Your task to perform on an android device: uninstall "Reddit" Image 0: 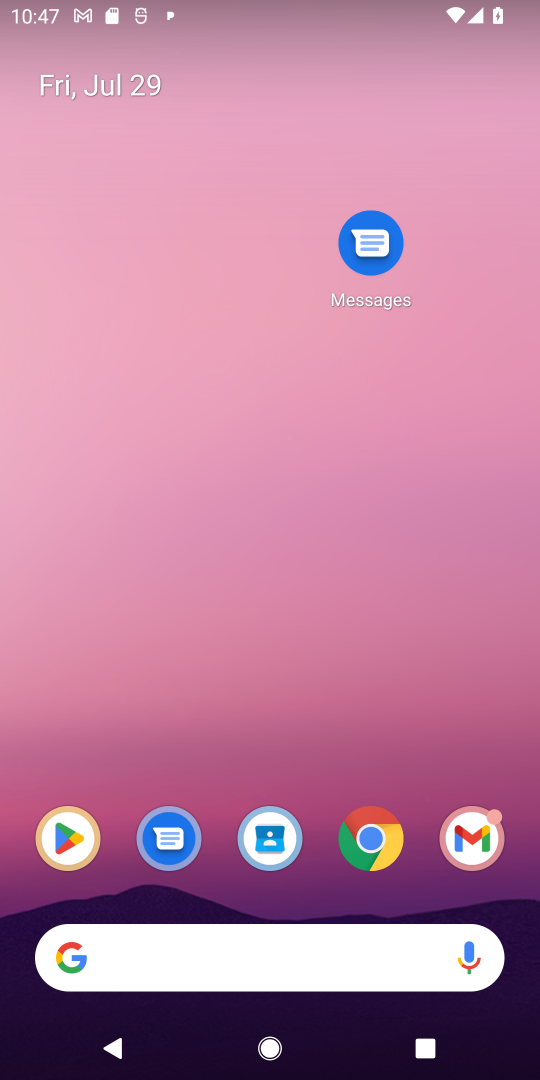
Step 0: click (84, 843)
Your task to perform on an android device: uninstall "Reddit" Image 1: 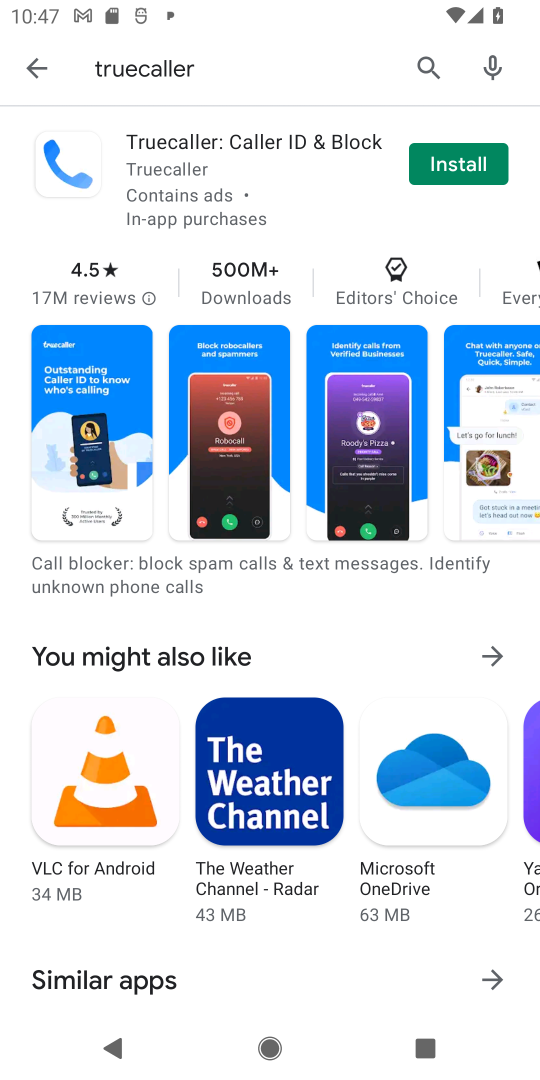
Step 1: click (222, 82)
Your task to perform on an android device: uninstall "Reddit" Image 2: 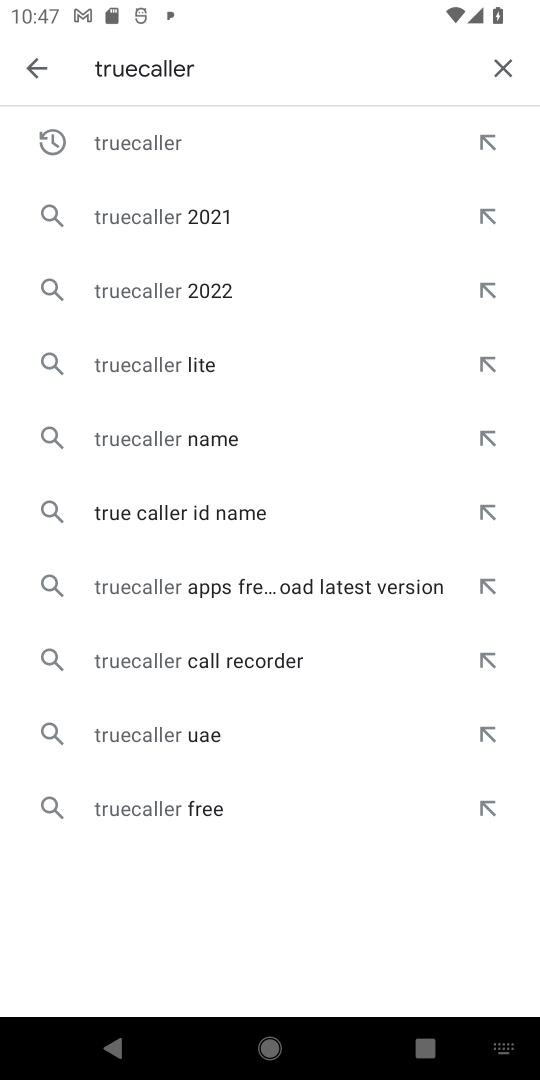
Step 2: click (497, 64)
Your task to perform on an android device: uninstall "Reddit" Image 3: 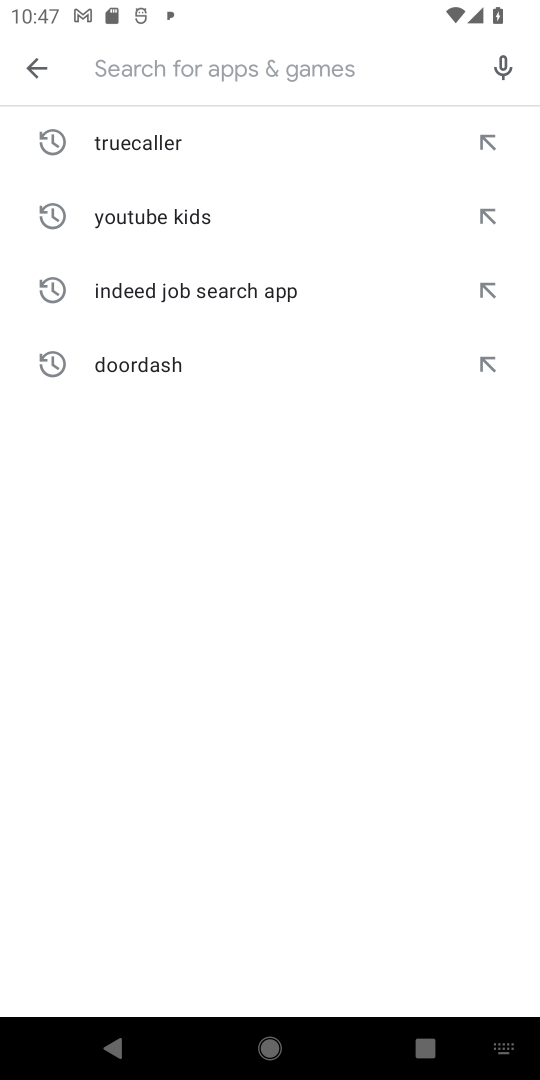
Step 3: type "Reddit"
Your task to perform on an android device: uninstall "Reddit" Image 4: 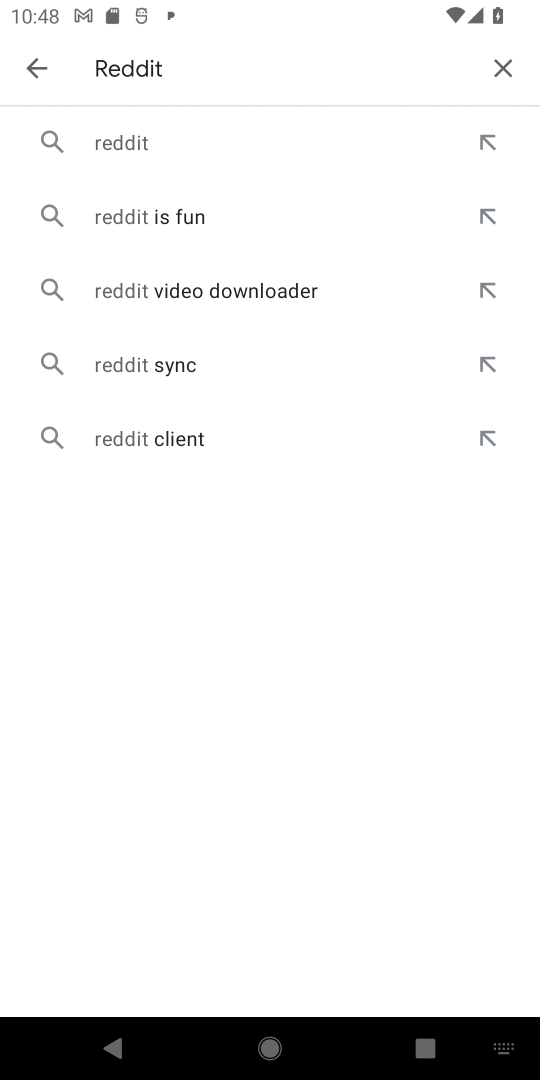
Step 4: click (152, 134)
Your task to perform on an android device: uninstall "Reddit" Image 5: 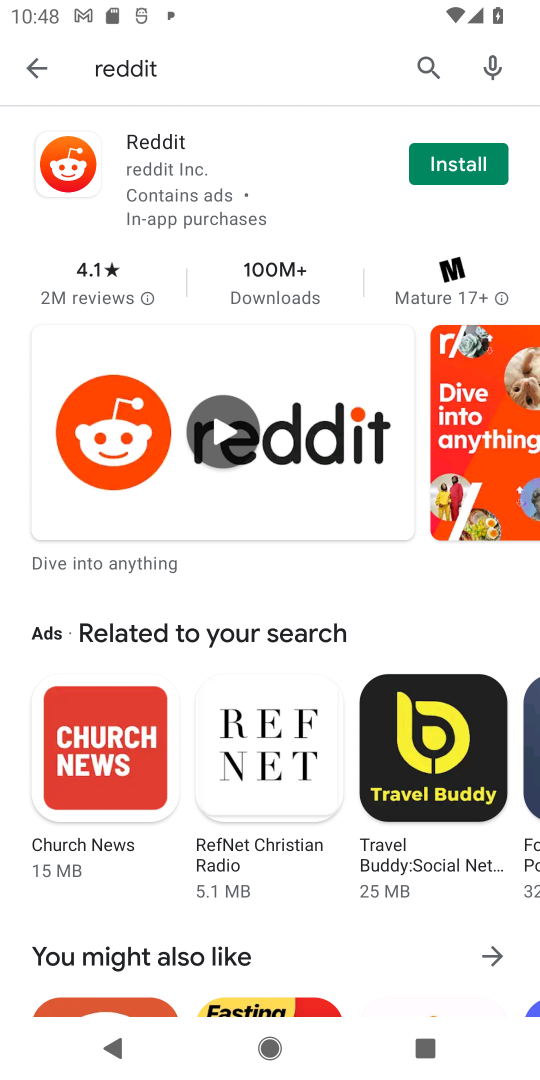
Step 5: task complete